Your task to perform on an android device: Open my contact list Image 0: 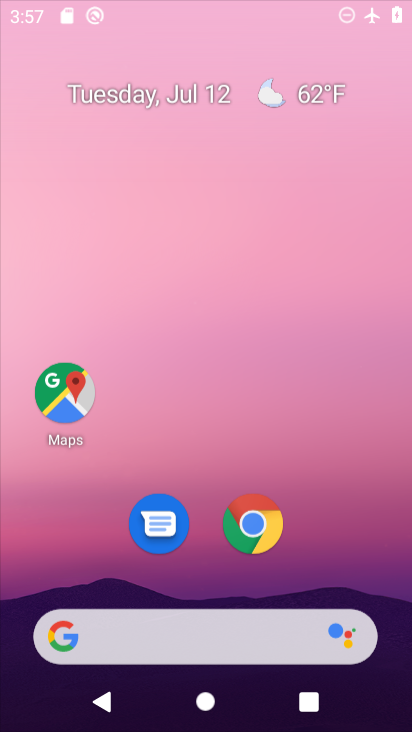
Step 0: drag from (349, 557) to (353, 471)
Your task to perform on an android device: Open my contact list Image 1: 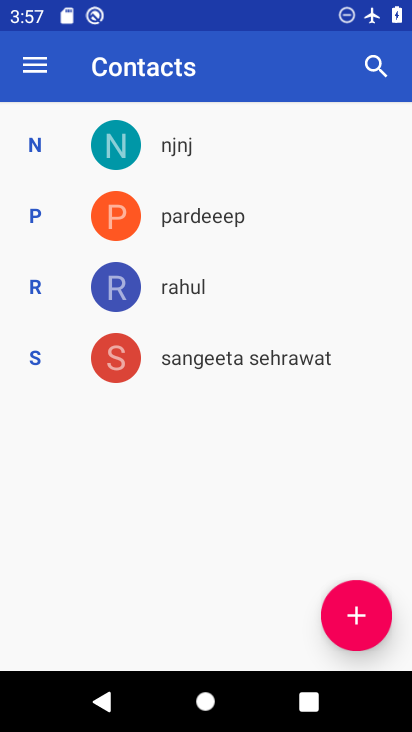
Step 1: press home button
Your task to perform on an android device: Open my contact list Image 2: 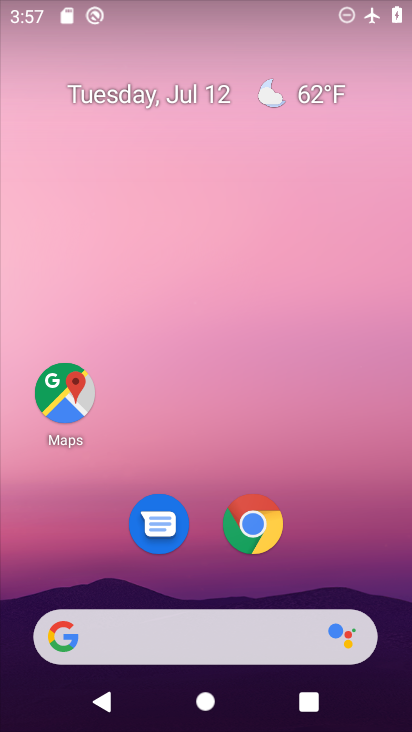
Step 2: drag from (329, 562) to (323, 9)
Your task to perform on an android device: Open my contact list Image 3: 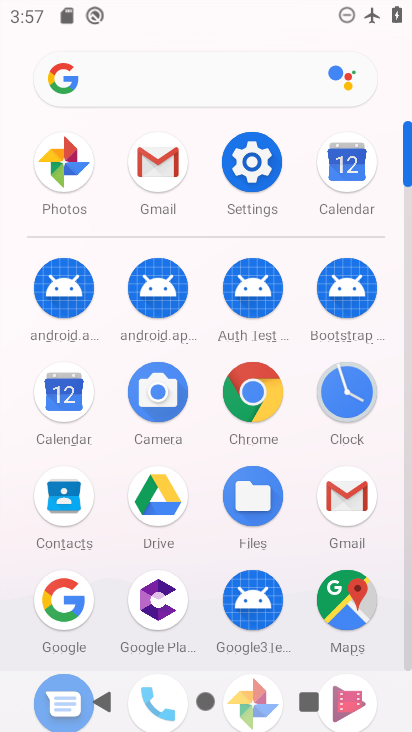
Step 3: click (75, 492)
Your task to perform on an android device: Open my contact list Image 4: 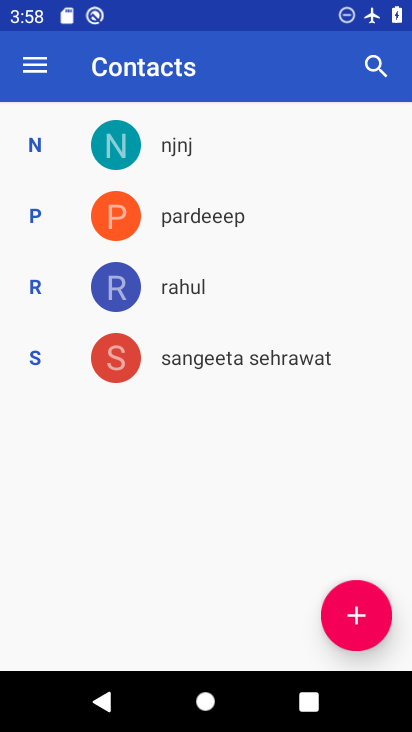
Step 4: task complete